Your task to perform on an android device: Do I have any events tomorrow? Image 0: 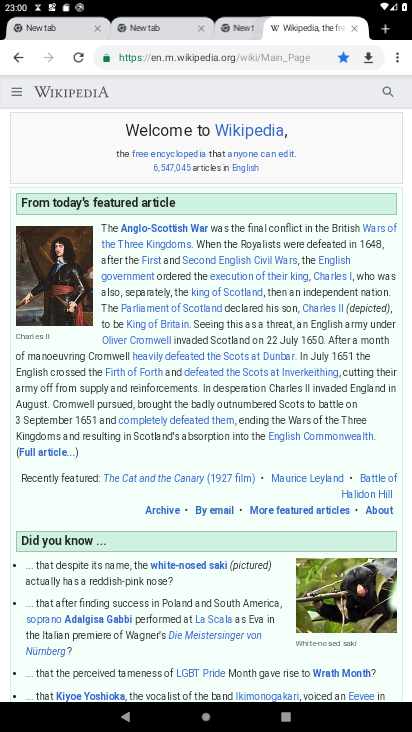
Step 0: click (388, 25)
Your task to perform on an android device: Do I have any events tomorrow? Image 1: 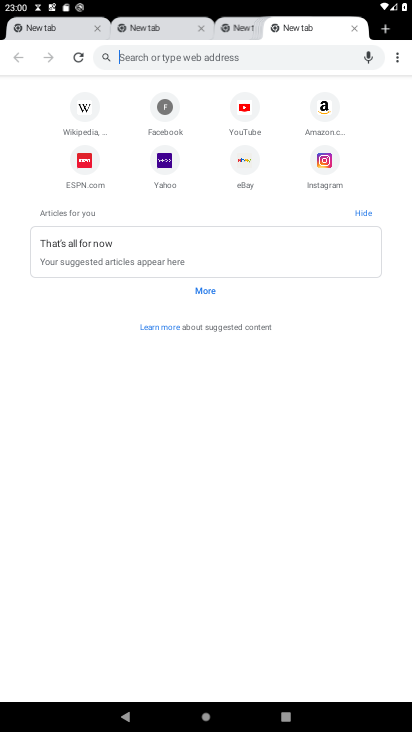
Step 1: click (154, 52)
Your task to perform on an android device: Do I have any events tomorrow? Image 2: 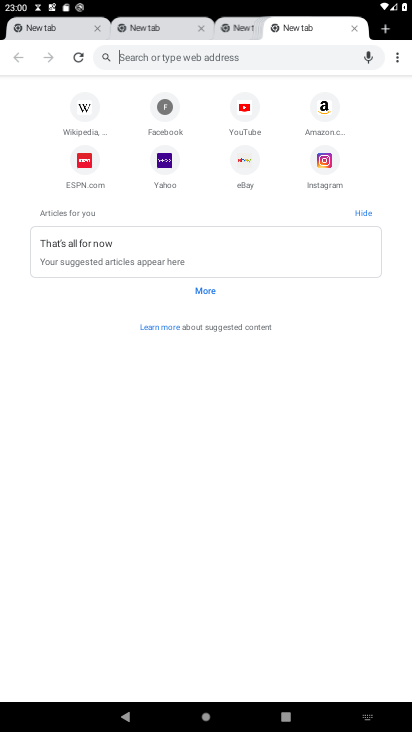
Step 2: type "Do I have any events tomorrow? "
Your task to perform on an android device: Do I have any events tomorrow? Image 3: 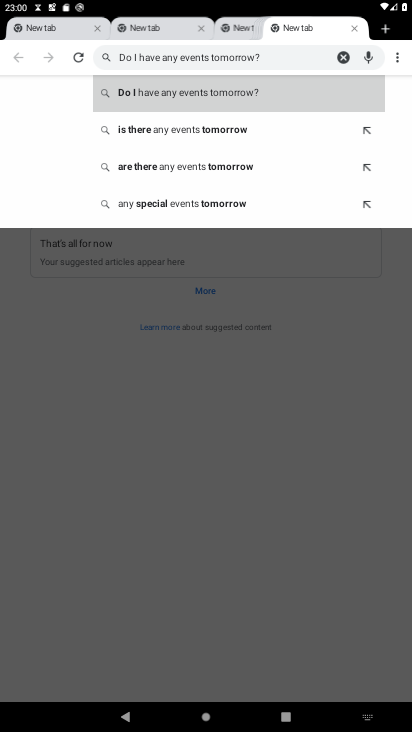
Step 3: click (177, 81)
Your task to perform on an android device: Do I have any events tomorrow? Image 4: 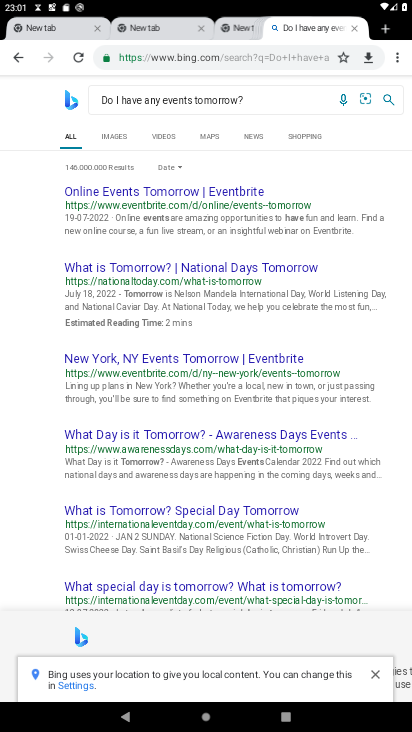
Step 4: task complete